Your task to perform on an android device: turn on translation in the chrome app Image 0: 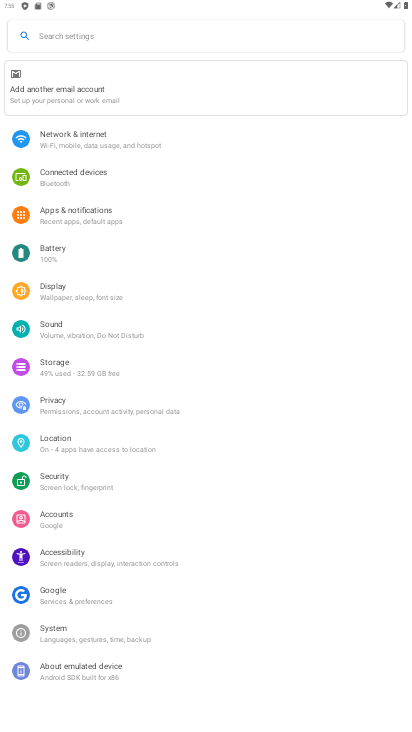
Step 0: press home button
Your task to perform on an android device: turn on translation in the chrome app Image 1: 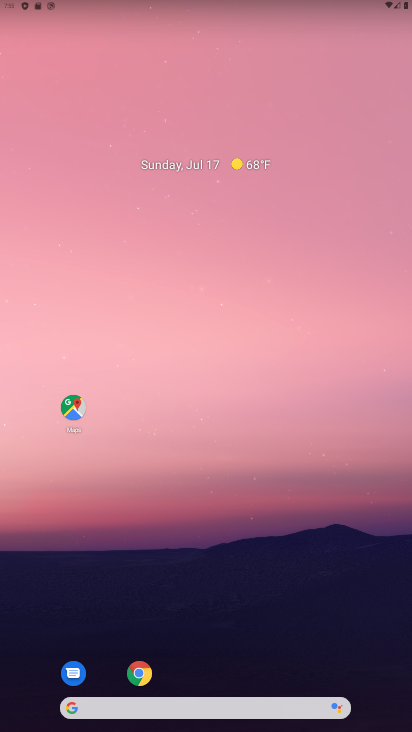
Step 1: drag from (301, 510) to (341, 32)
Your task to perform on an android device: turn on translation in the chrome app Image 2: 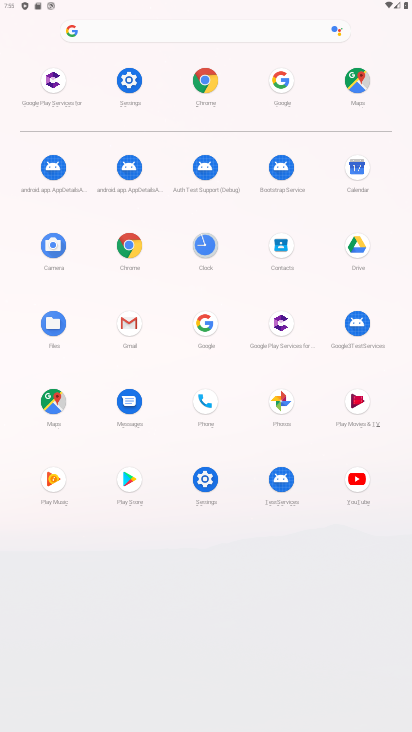
Step 2: click (214, 85)
Your task to perform on an android device: turn on translation in the chrome app Image 3: 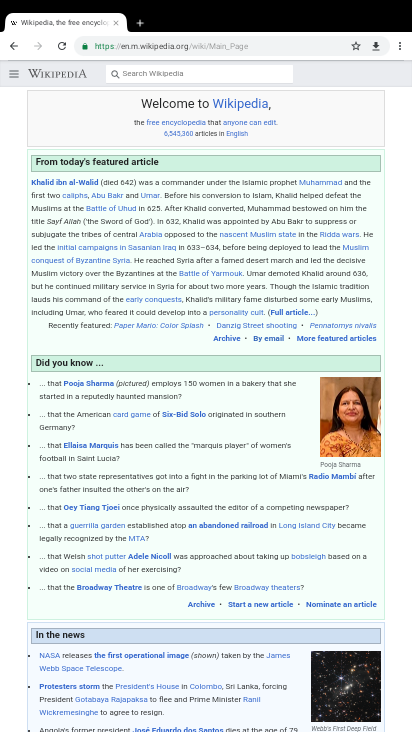
Step 3: drag from (400, 40) to (297, 305)
Your task to perform on an android device: turn on translation in the chrome app Image 4: 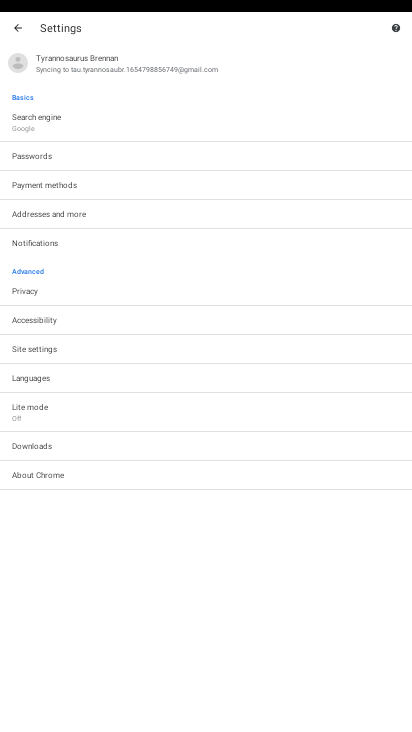
Step 4: click (57, 382)
Your task to perform on an android device: turn on translation in the chrome app Image 5: 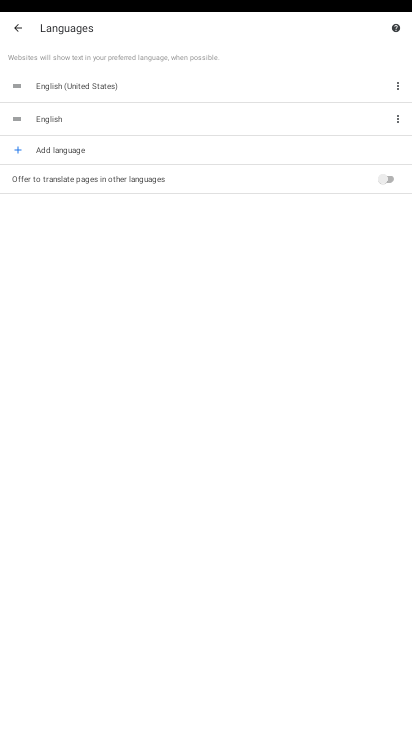
Step 5: click (389, 179)
Your task to perform on an android device: turn on translation in the chrome app Image 6: 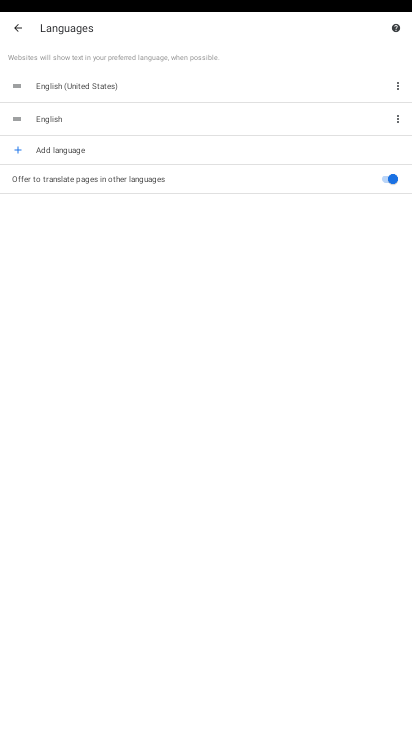
Step 6: task complete